Your task to perform on an android device: stop showing notifications on the lock screen Image 0: 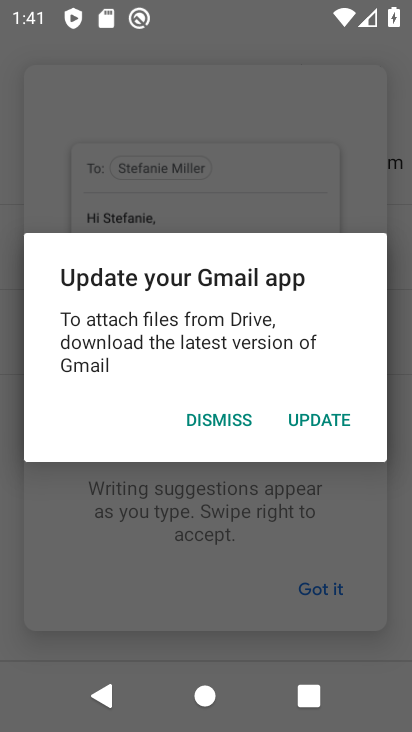
Step 0: press home button
Your task to perform on an android device: stop showing notifications on the lock screen Image 1: 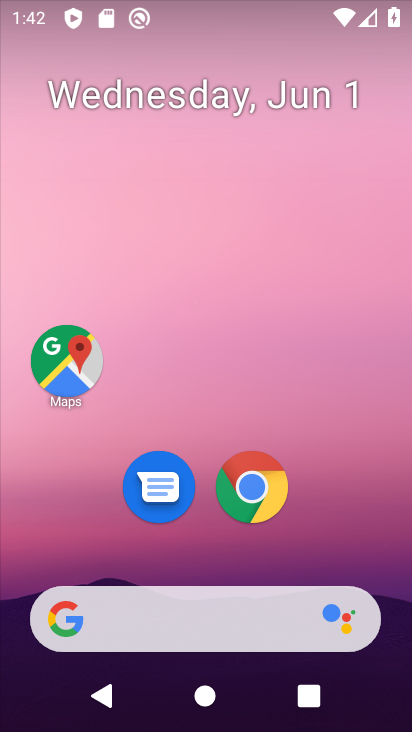
Step 1: drag from (373, 563) to (381, 242)
Your task to perform on an android device: stop showing notifications on the lock screen Image 2: 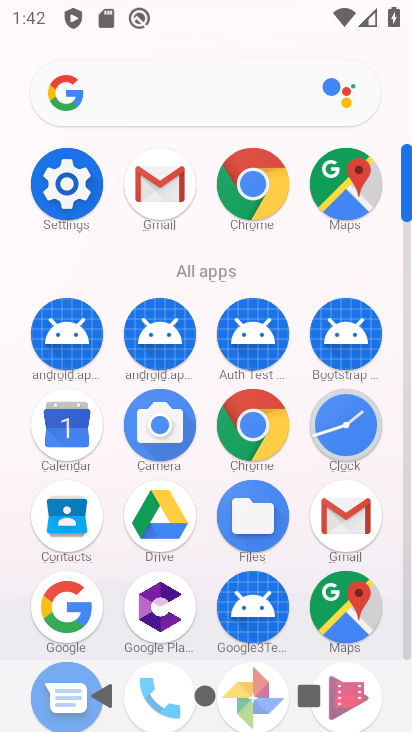
Step 2: click (77, 206)
Your task to perform on an android device: stop showing notifications on the lock screen Image 3: 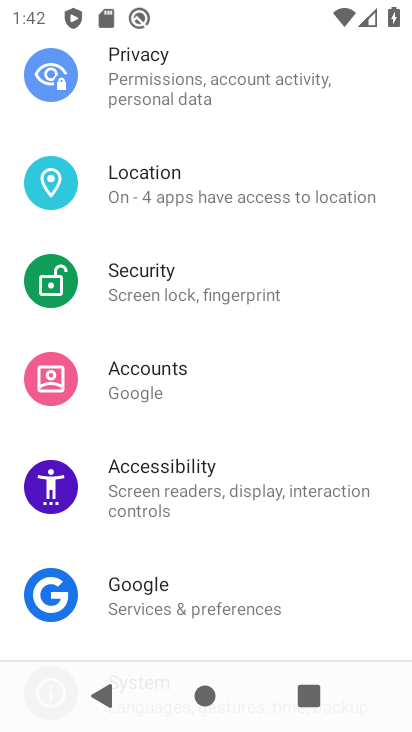
Step 3: drag from (344, 325) to (356, 385)
Your task to perform on an android device: stop showing notifications on the lock screen Image 4: 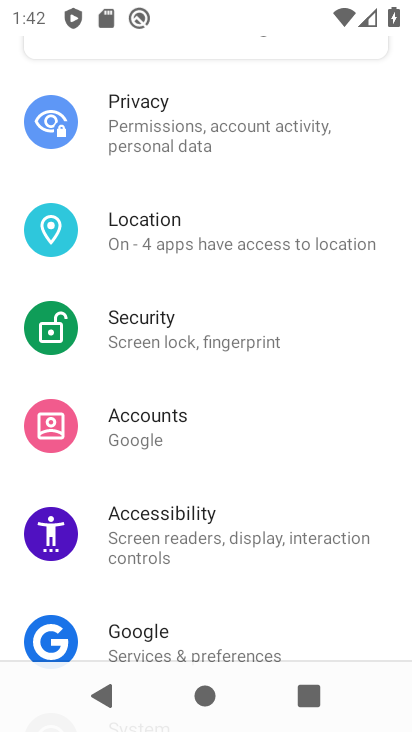
Step 4: drag from (363, 311) to (365, 362)
Your task to perform on an android device: stop showing notifications on the lock screen Image 5: 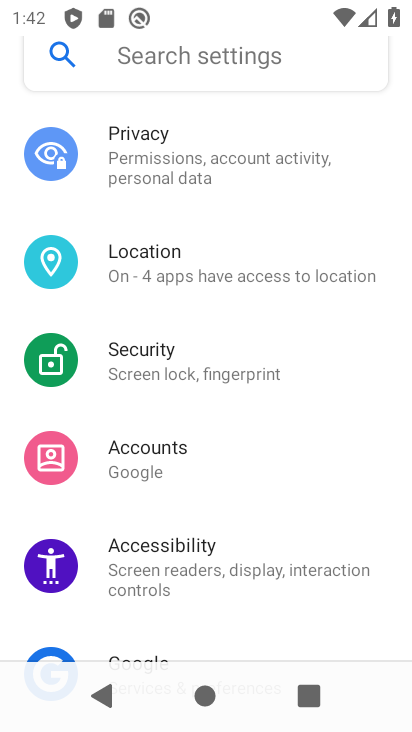
Step 5: drag from (364, 267) to (367, 347)
Your task to perform on an android device: stop showing notifications on the lock screen Image 6: 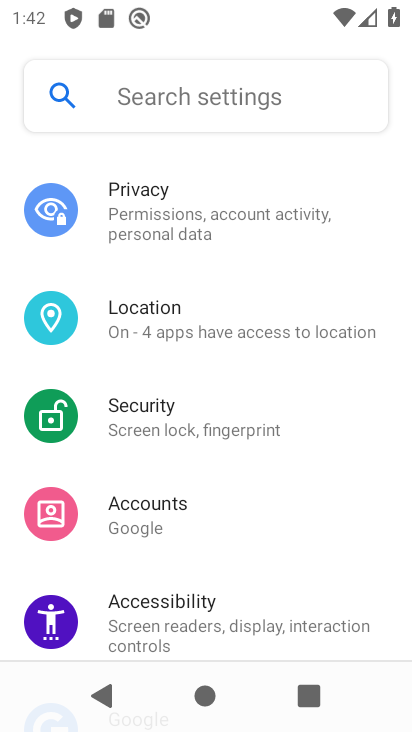
Step 6: drag from (368, 288) to (371, 359)
Your task to perform on an android device: stop showing notifications on the lock screen Image 7: 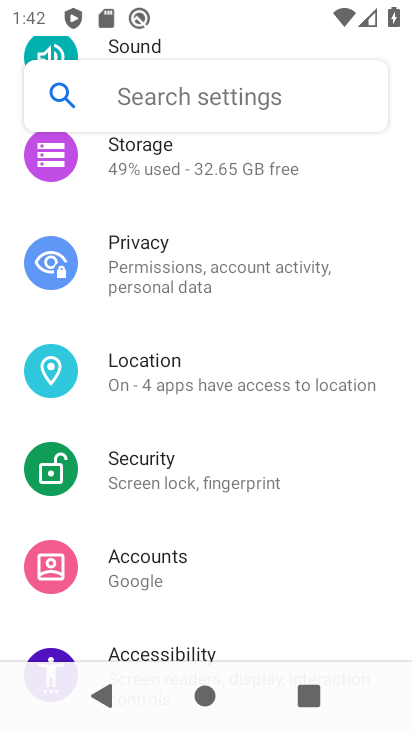
Step 7: drag from (373, 314) to (371, 385)
Your task to perform on an android device: stop showing notifications on the lock screen Image 8: 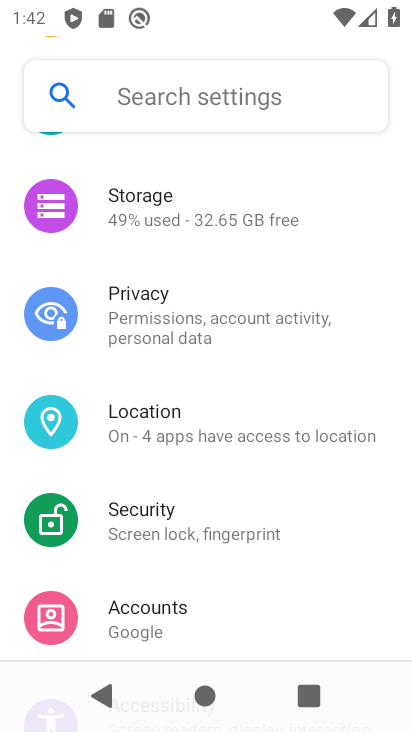
Step 8: drag from (369, 316) to (367, 385)
Your task to perform on an android device: stop showing notifications on the lock screen Image 9: 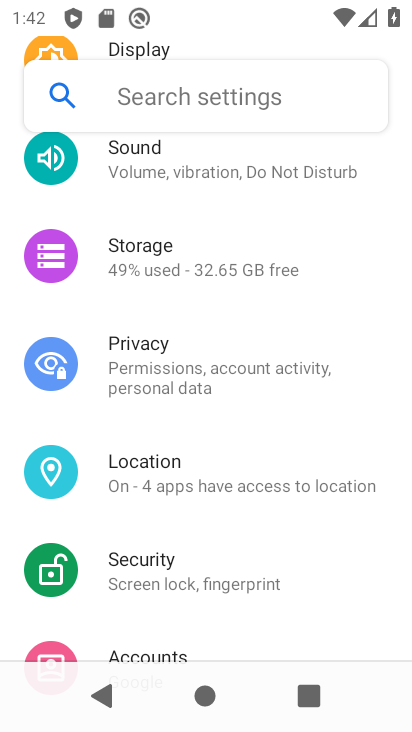
Step 9: drag from (363, 306) to (367, 373)
Your task to perform on an android device: stop showing notifications on the lock screen Image 10: 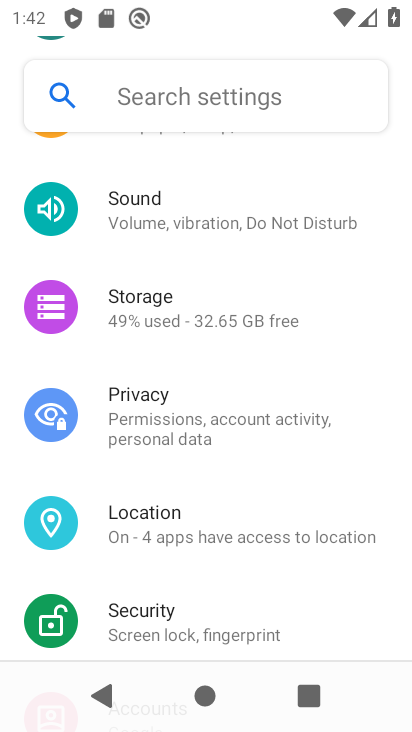
Step 10: drag from (364, 314) to (363, 384)
Your task to perform on an android device: stop showing notifications on the lock screen Image 11: 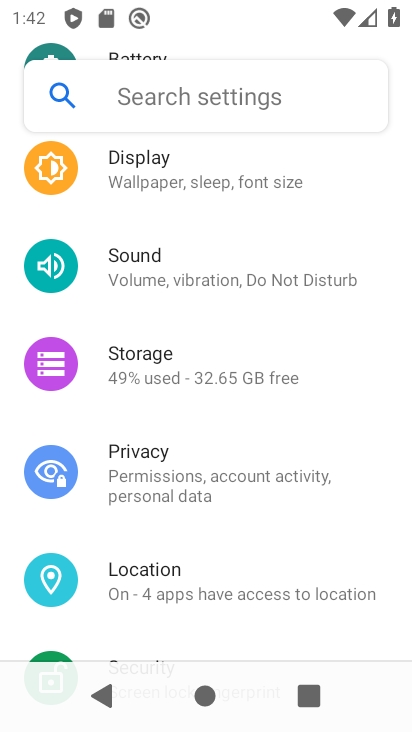
Step 11: drag from (358, 330) to (360, 404)
Your task to perform on an android device: stop showing notifications on the lock screen Image 12: 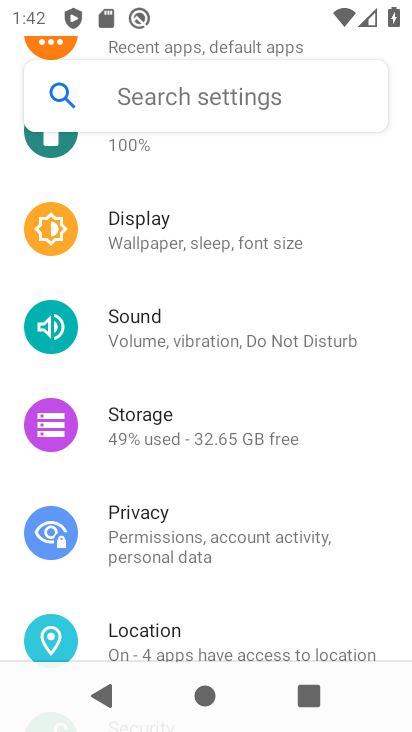
Step 12: drag from (364, 317) to (365, 385)
Your task to perform on an android device: stop showing notifications on the lock screen Image 13: 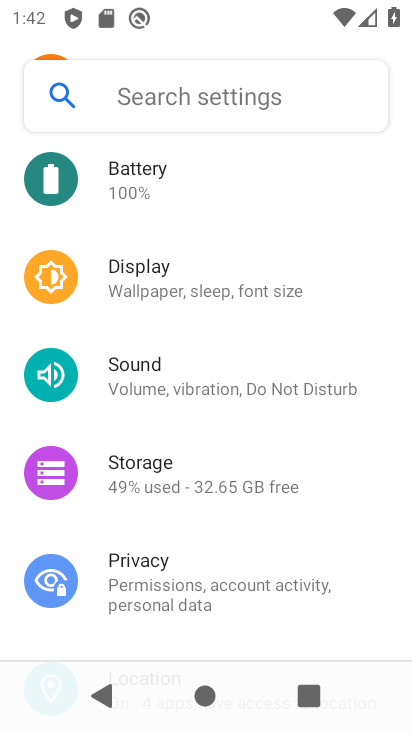
Step 13: drag from (372, 341) to (372, 415)
Your task to perform on an android device: stop showing notifications on the lock screen Image 14: 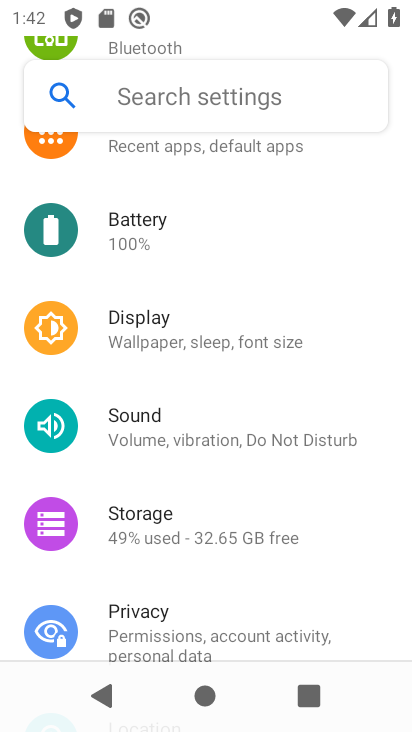
Step 14: drag from (364, 349) to (368, 414)
Your task to perform on an android device: stop showing notifications on the lock screen Image 15: 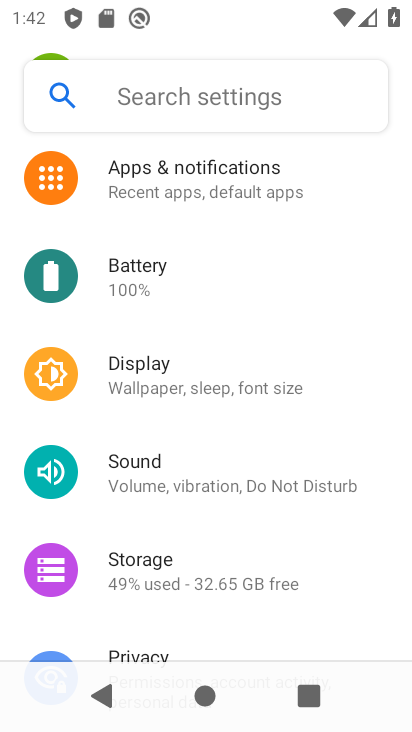
Step 15: drag from (362, 336) to (362, 407)
Your task to perform on an android device: stop showing notifications on the lock screen Image 16: 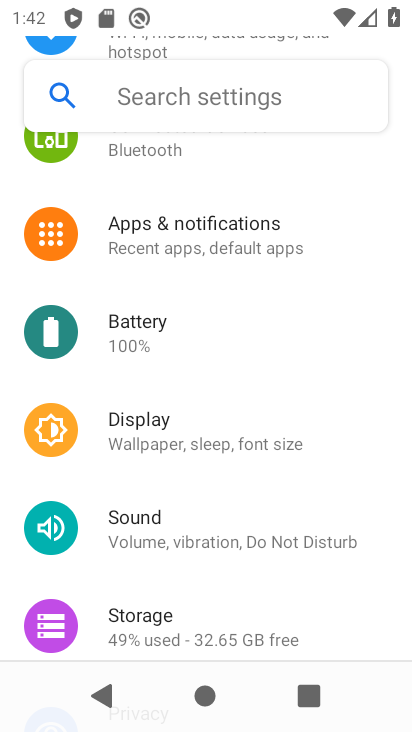
Step 16: drag from (361, 337) to (364, 406)
Your task to perform on an android device: stop showing notifications on the lock screen Image 17: 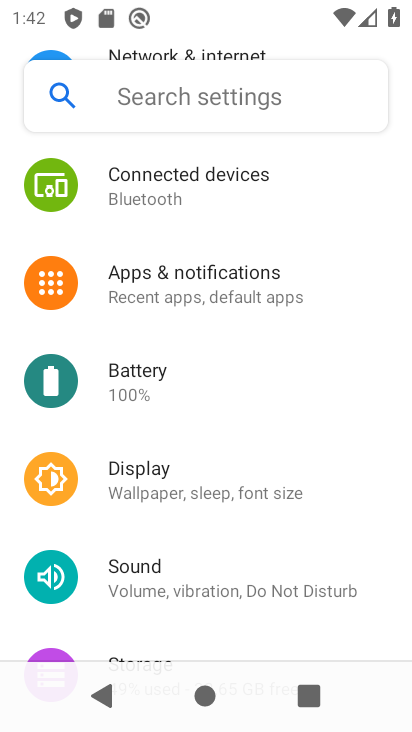
Step 17: drag from (362, 285) to (360, 404)
Your task to perform on an android device: stop showing notifications on the lock screen Image 18: 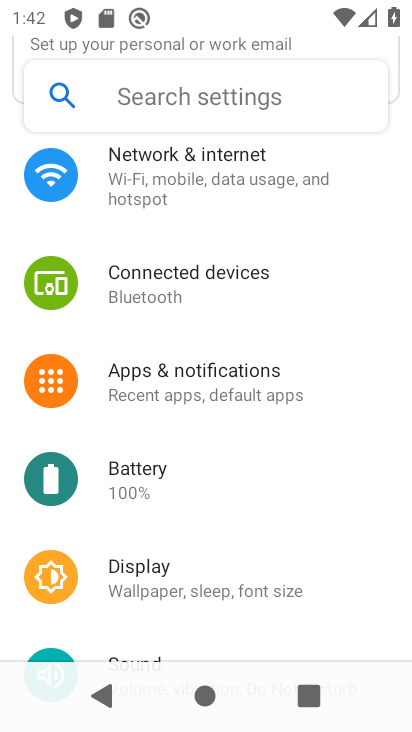
Step 18: drag from (350, 318) to (357, 436)
Your task to perform on an android device: stop showing notifications on the lock screen Image 19: 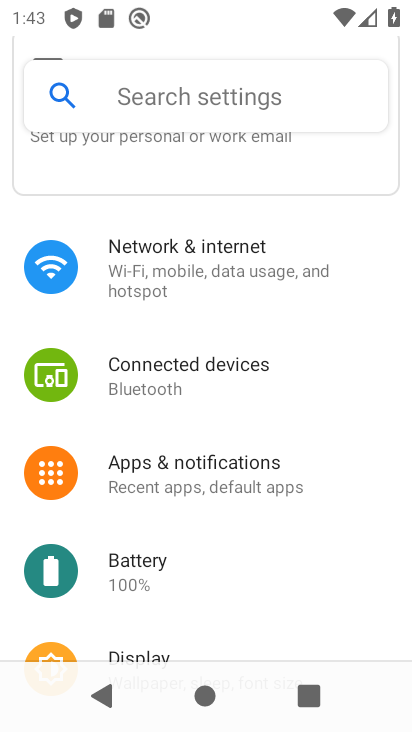
Step 19: click (284, 471)
Your task to perform on an android device: stop showing notifications on the lock screen Image 20: 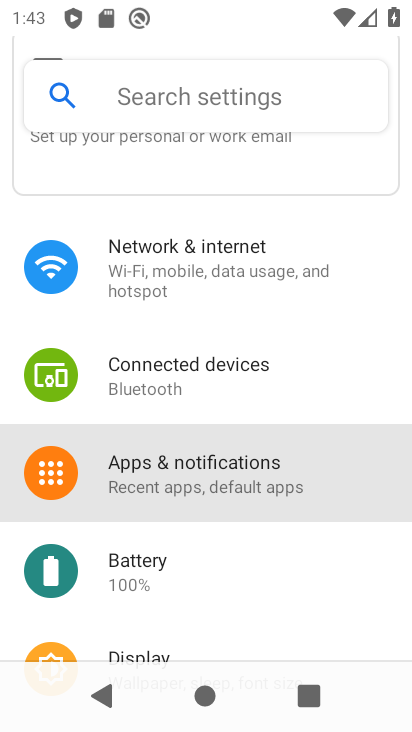
Step 20: click (223, 483)
Your task to perform on an android device: stop showing notifications on the lock screen Image 21: 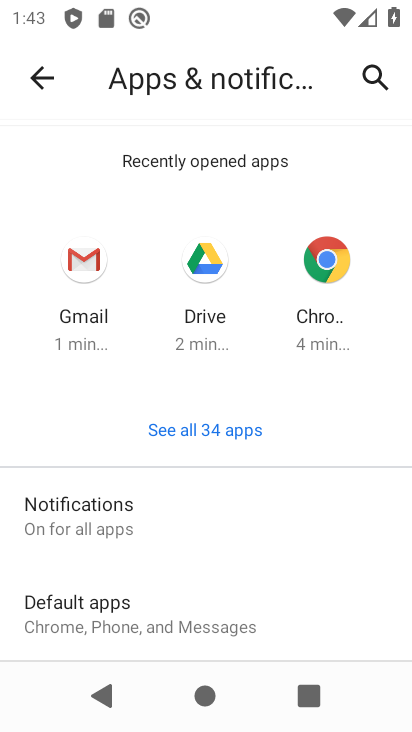
Step 21: click (125, 525)
Your task to perform on an android device: stop showing notifications on the lock screen Image 22: 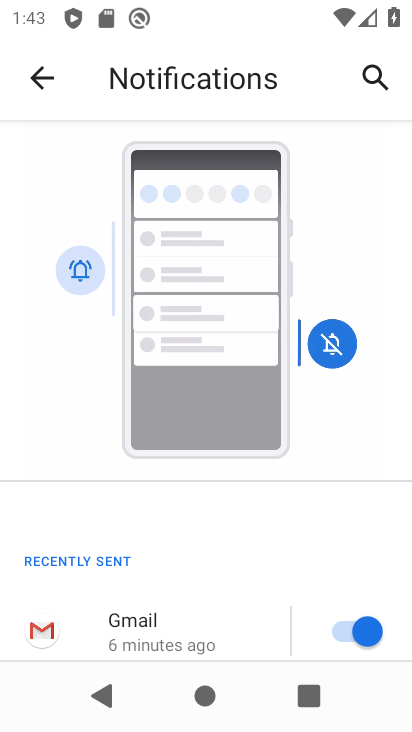
Step 22: drag from (235, 574) to (241, 416)
Your task to perform on an android device: stop showing notifications on the lock screen Image 23: 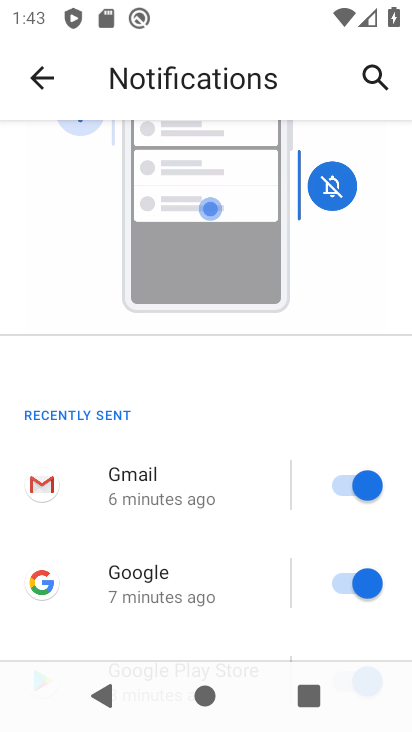
Step 23: drag from (255, 551) to (257, 368)
Your task to perform on an android device: stop showing notifications on the lock screen Image 24: 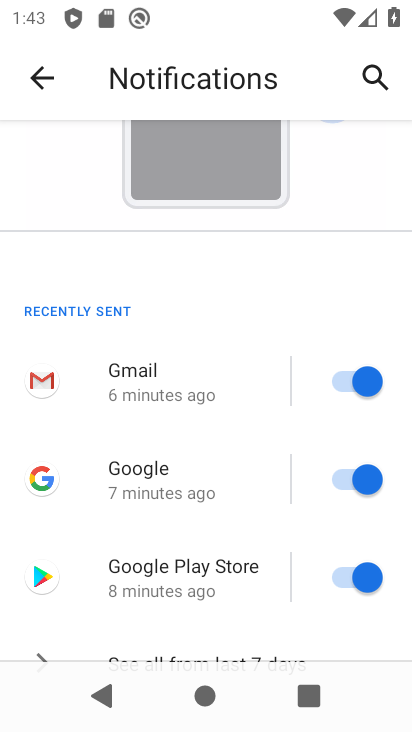
Step 24: drag from (253, 558) to (247, 374)
Your task to perform on an android device: stop showing notifications on the lock screen Image 25: 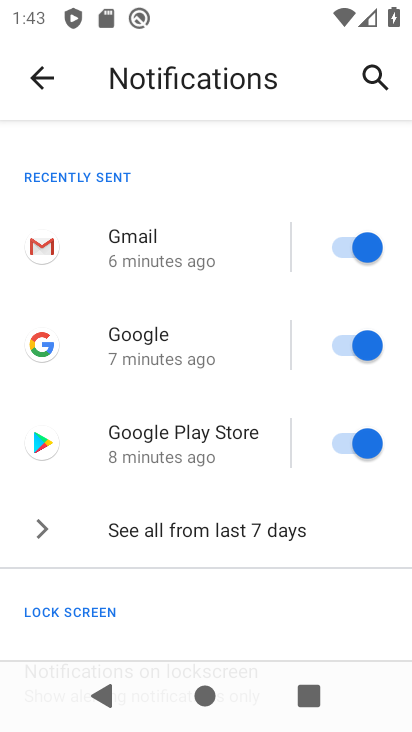
Step 25: drag from (244, 424) to (251, 261)
Your task to perform on an android device: stop showing notifications on the lock screen Image 26: 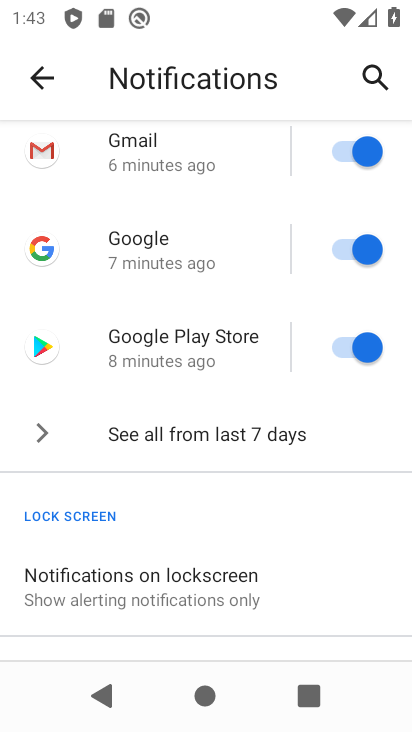
Step 26: click (278, 342)
Your task to perform on an android device: stop showing notifications on the lock screen Image 27: 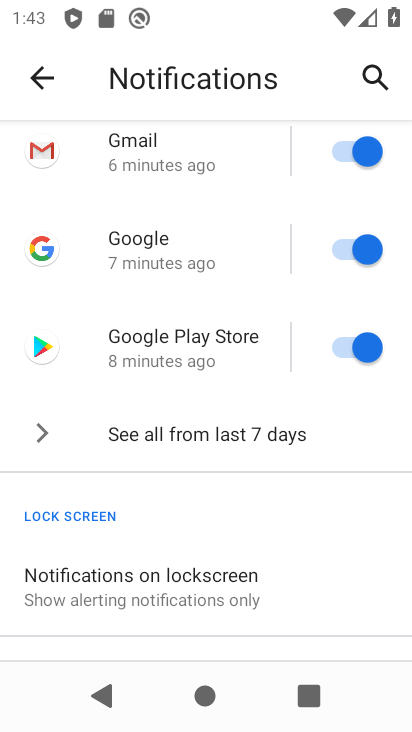
Step 27: click (227, 590)
Your task to perform on an android device: stop showing notifications on the lock screen Image 28: 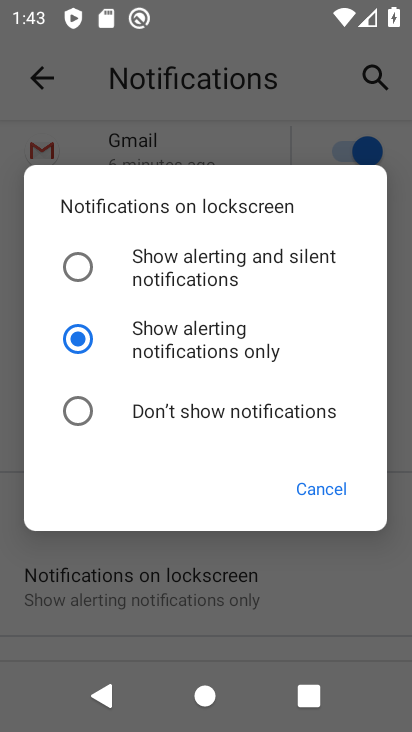
Step 28: click (203, 416)
Your task to perform on an android device: stop showing notifications on the lock screen Image 29: 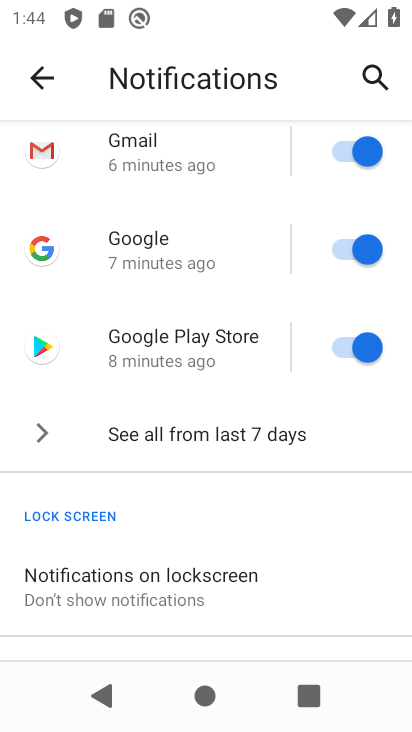
Step 29: task complete